Your task to perform on an android device: Search for sushi restaurants on Maps Image 0: 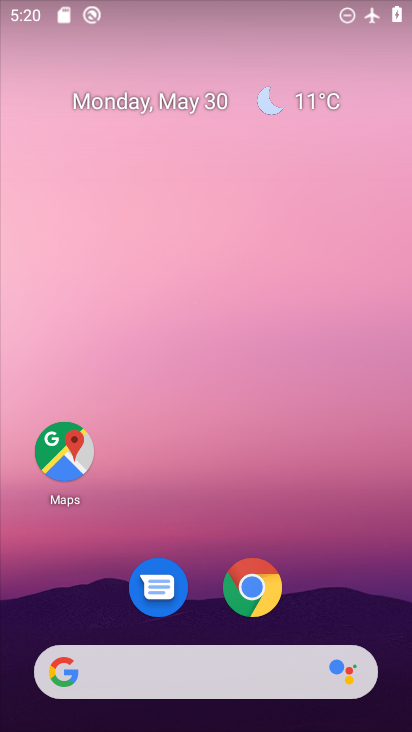
Step 0: drag from (263, 166) to (253, 81)
Your task to perform on an android device: Search for sushi restaurants on Maps Image 1: 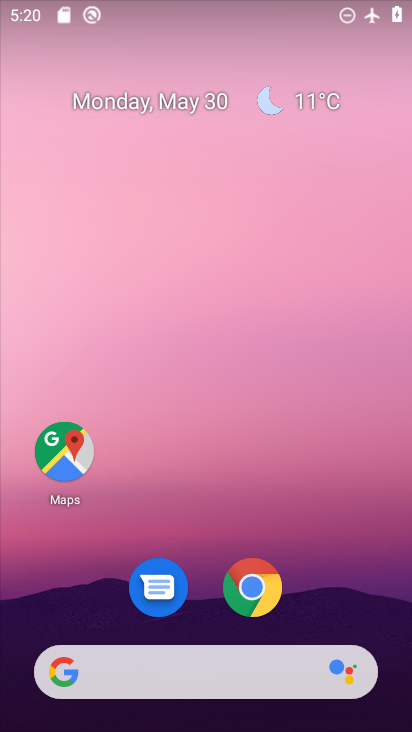
Step 1: drag from (325, 601) to (268, 55)
Your task to perform on an android device: Search for sushi restaurants on Maps Image 2: 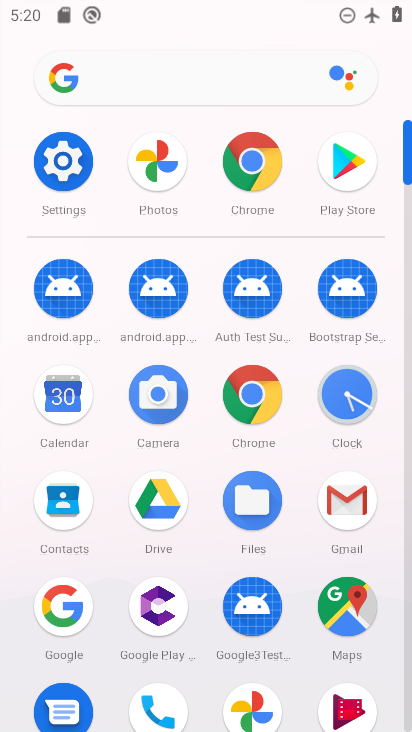
Step 2: drag from (17, 578) to (37, 282)
Your task to perform on an android device: Search for sushi restaurants on Maps Image 3: 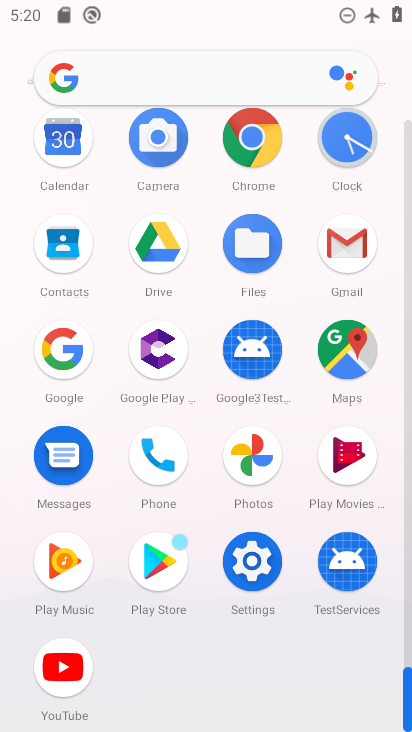
Step 3: click (343, 349)
Your task to perform on an android device: Search for sushi restaurants on Maps Image 4: 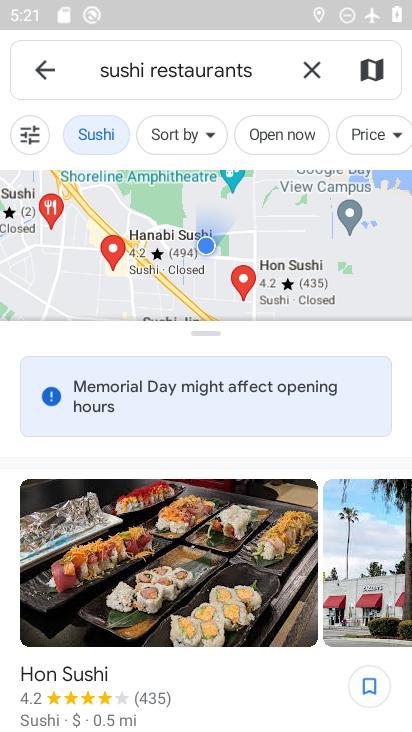
Step 4: task complete